Your task to perform on an android device: turn on improve location accuracy Image 0: 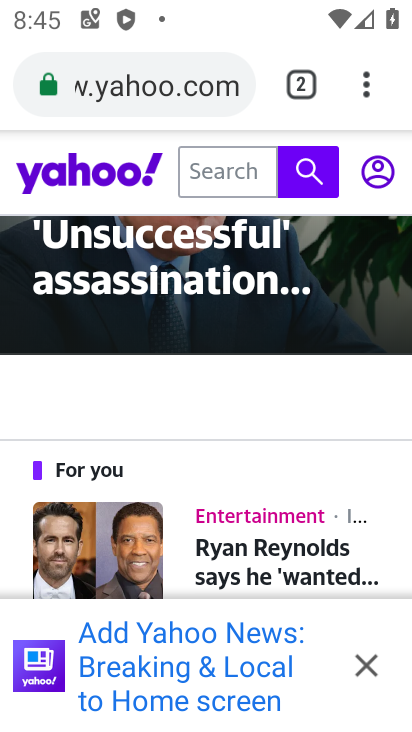
Step 0: press home button
Your task to perform on an android device: turn on improve location accuracy Image 1: 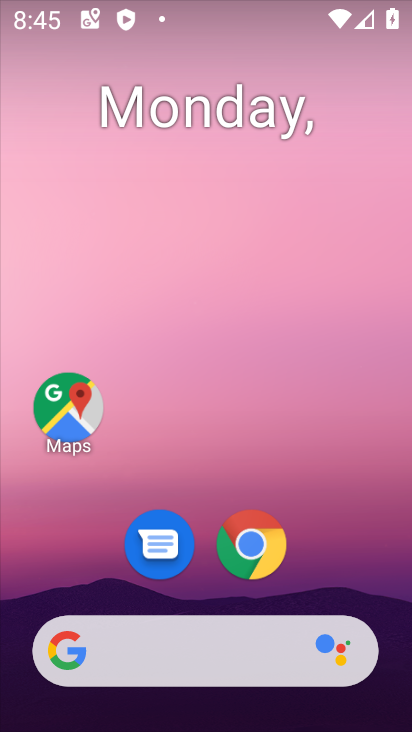
Step 1: drag from (309, 466) to (230, 55)
Your task to perform on an android device: turn on improve location accuracy Image 2: 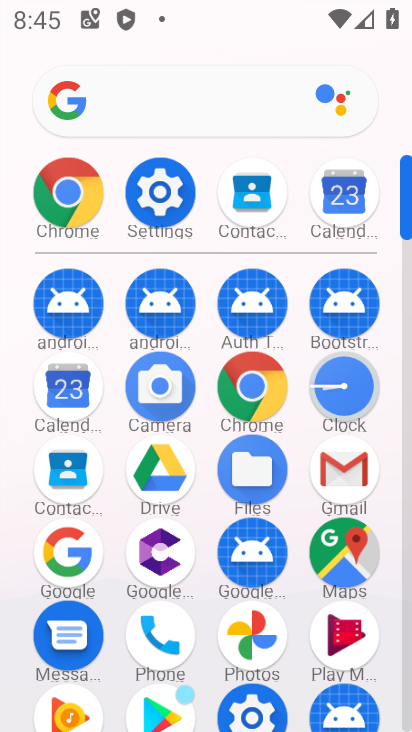
Step 2: click (153, 190)
Your task to perform on an android device: turn on improve location accuracy Image 3: 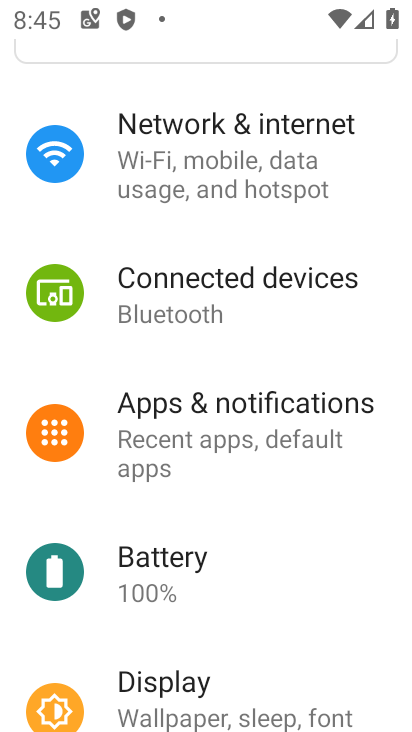
Step 3: drag from (224, 592) to (204, 263)
Your task to perform on an android device: turn on improve location accuracy Image 4: 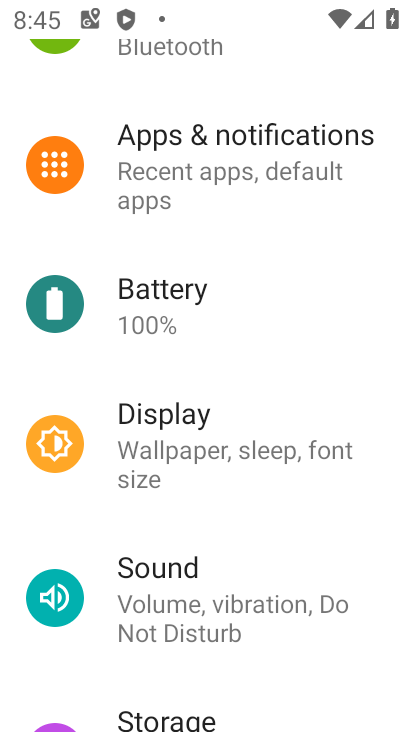
Step 4: drag from (268, 551) to (255, 84)
Your task to perform on an android device: turn on improve location accuracy Image 5: 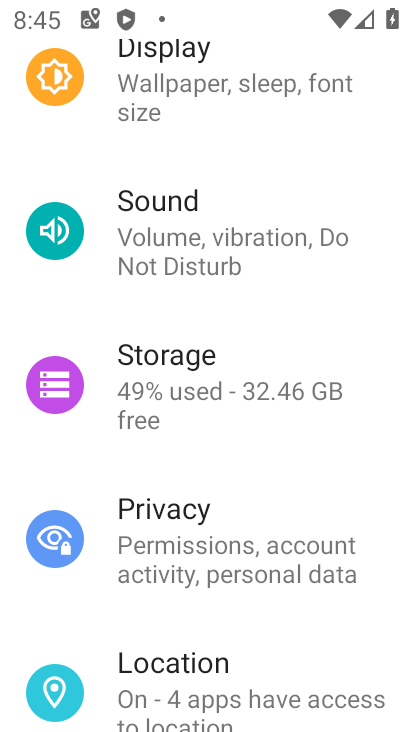
Step 5: click (184, 658)
Your task to perform on an android device: turn on improve location accuracy Image 6: 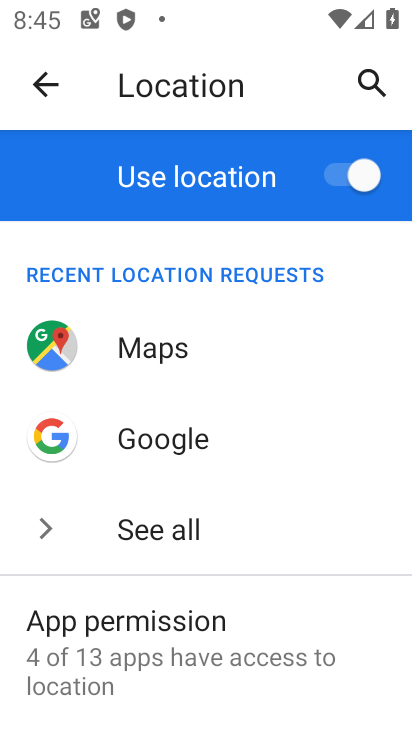
Step 6: drag from (272, 592) to (224, 44)
Your task to perform on an android device: turn on improve location accuracy Image 7: 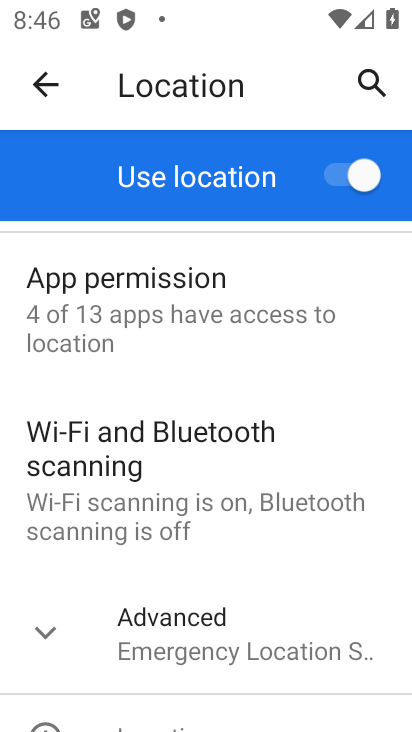
Step 7: drag from (91, 561) to (62, 213)
Your task to perform on an android device: turn on improve location accuracy Image 8: 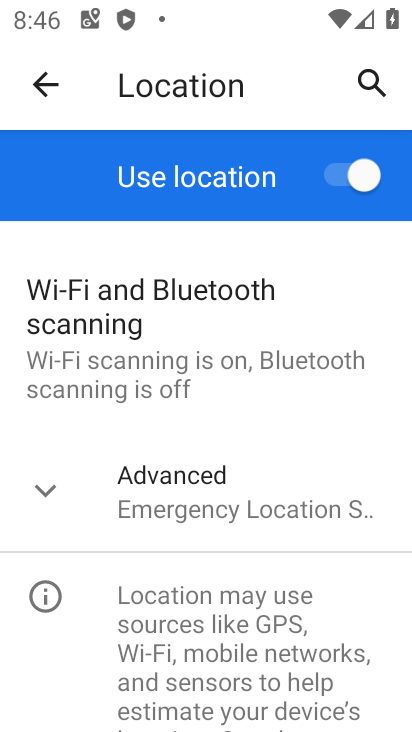
Step 8: click (25, 475)
Your task to perform on an android device: turn on improve location accuracy Image 9: 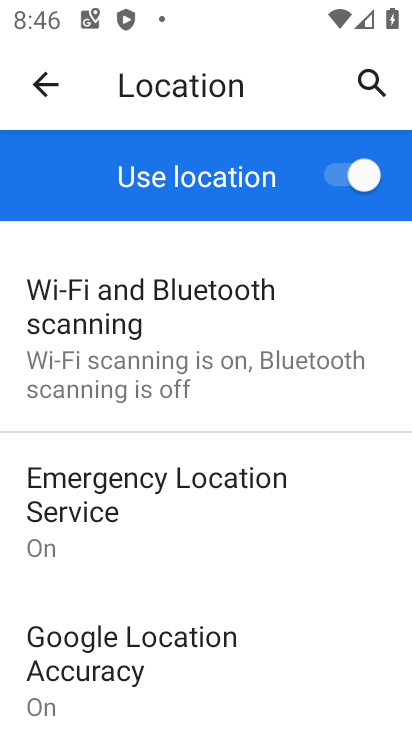
Step 9: drag from (140, 530) to (116, 313)
Your task to perform on an android device: turn on improve location accuracy Image 10: 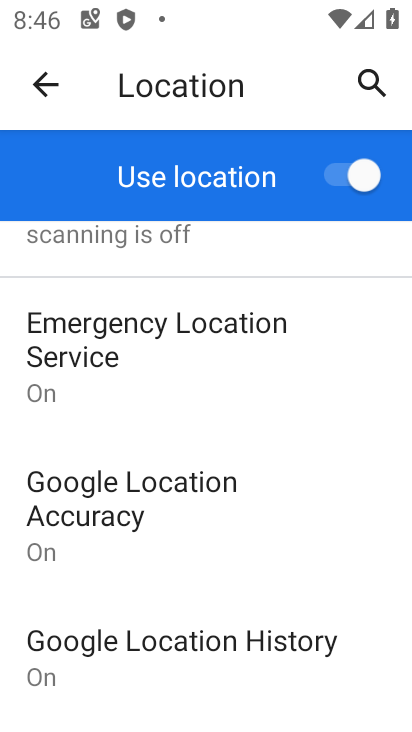
Step 10: click (98, 519)
Your task to perform on an android device: turn on improve location accuracy Image 11: 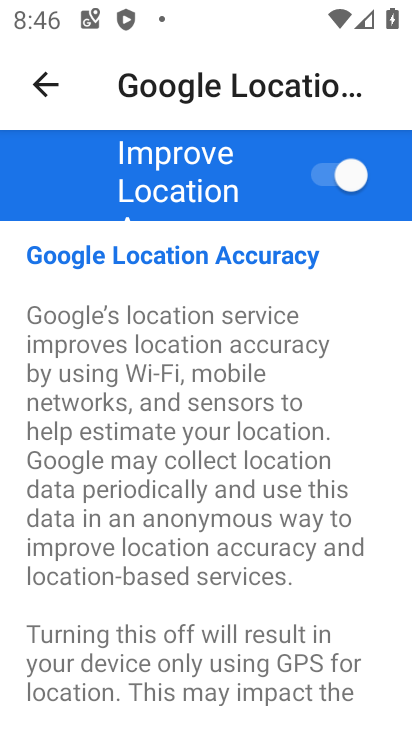
Step 11: task complete